Your task to perform on an android device: turn on wifi Image 0: 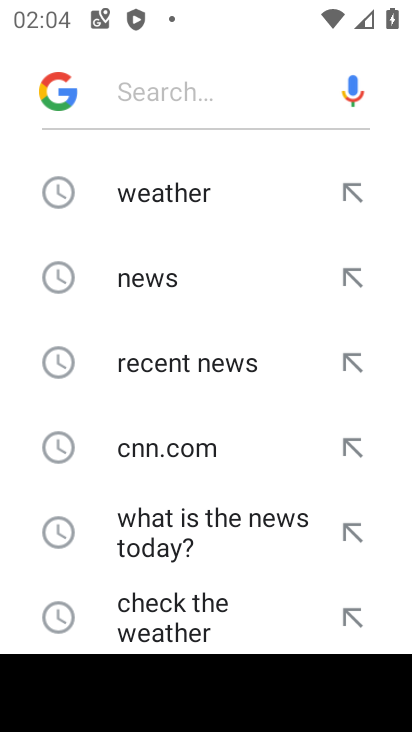
Step 0: press home button
Your task to perform on an android device: turn on wifi Image 1: 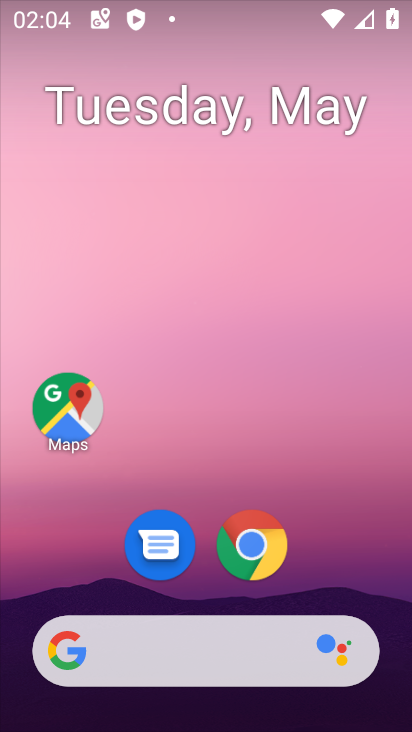
Step 1: drag from (399, 613) to (335, 79)
Your task to perform on an android device: turn on wifi Image 2: 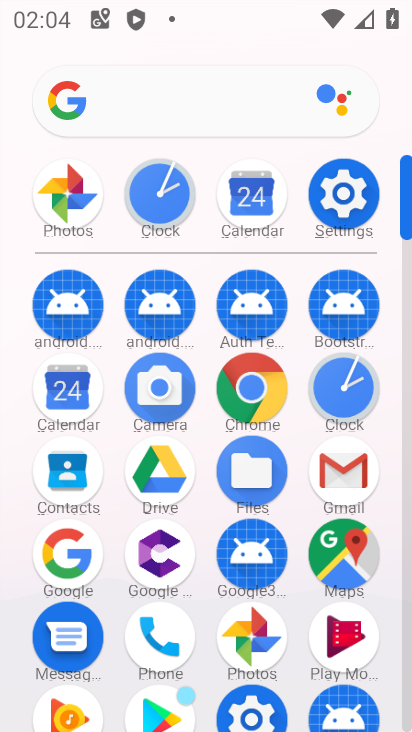
Step 2: click (405, 694)
Your task to perform on an android device: turn on wifi Image 3: 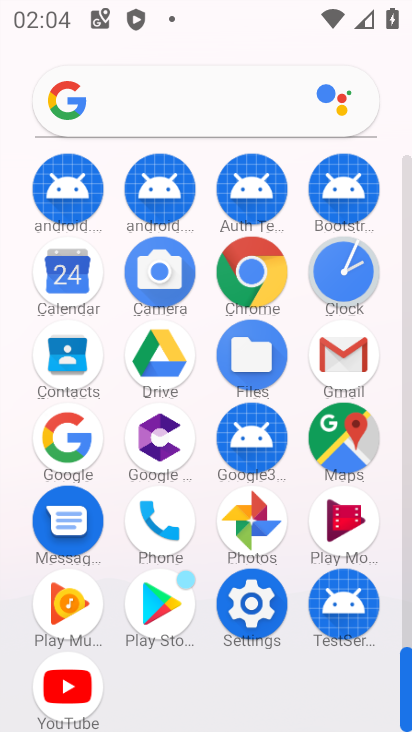
Step 3: click (251, 602)
Your task to perform on an android device: turn on wifi Image 4: 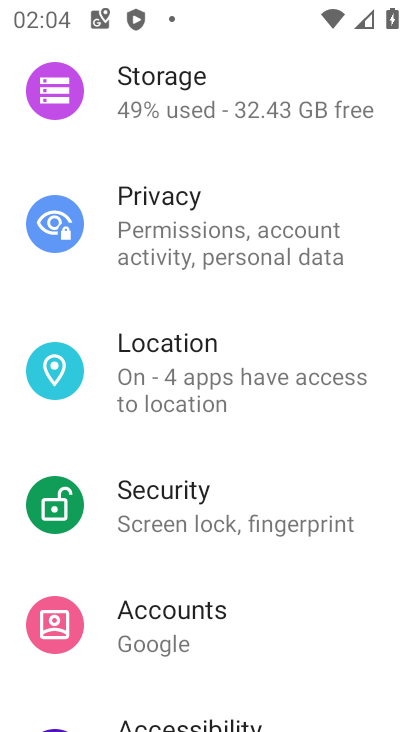
Step 4: drag from (361, 136) to (326, 449)
Your task to perform on an android device: turn on wifi Image 5: 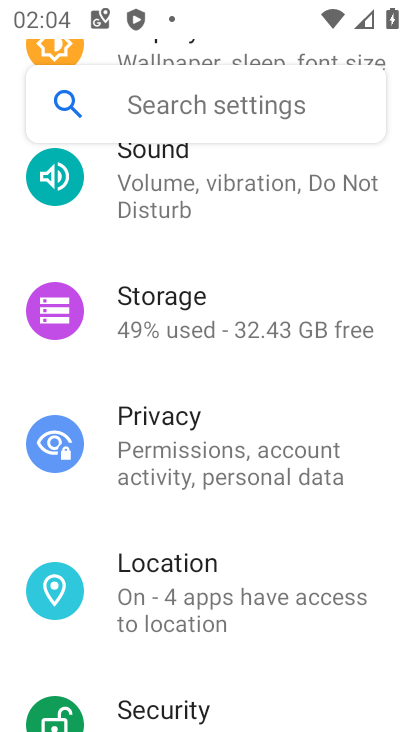
Step 5: drag from (344, 246) to (308, 514)
Your task to perform on an android device: turn on wifi Image 6: 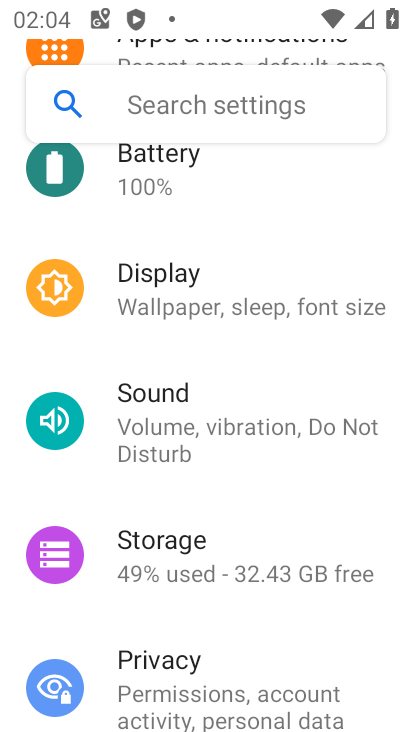
Step 6: drag from (341, 242) to (330, 607)
Your task to perform on an android device: turn on wifi Image 7: 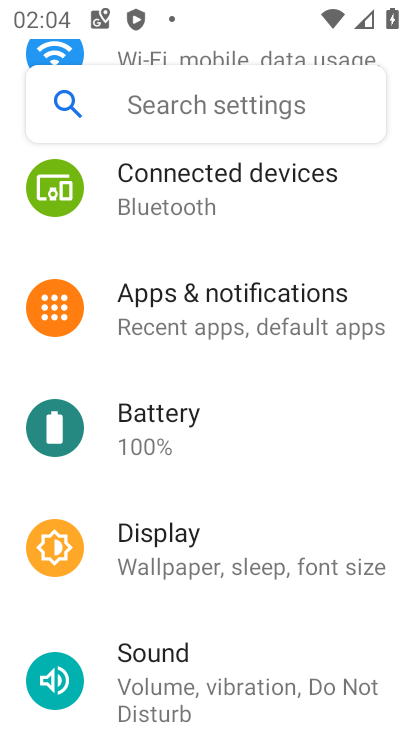
Step 7: drag from (372, 179) to (335, 484)
Your task to perform on an android device: turn on wifi Image 8: 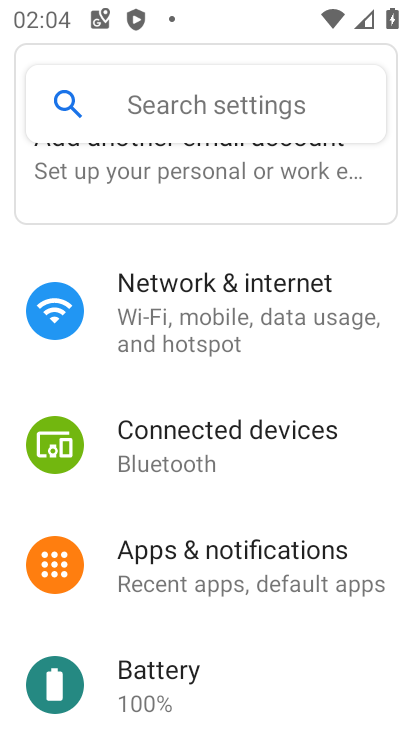
Step 8: click (164, 294)
Your task to perform on an android device: turn on wifi Image 9: 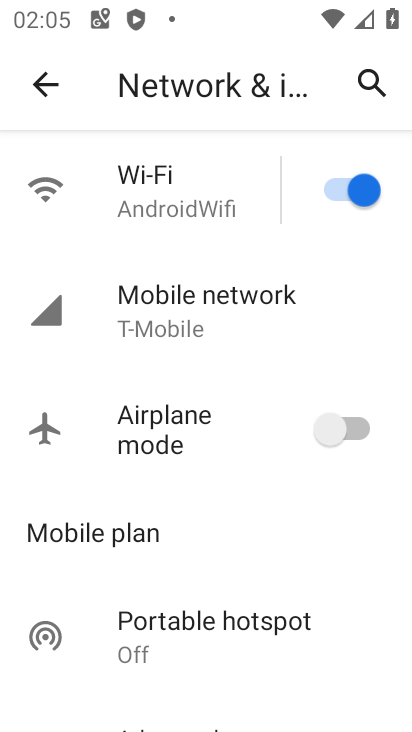
Step 9: task complete